Your task to perform on an android device: Open ESPN.com Image 0: 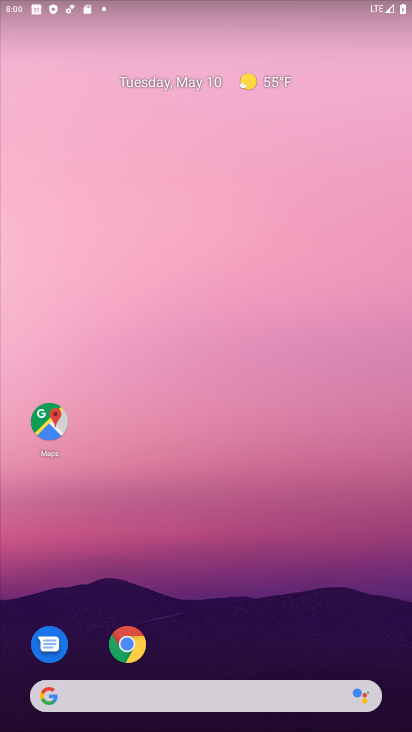
Step 0: drag from (221, 622) to (234, 152)
Your task to perform on an android device: Open ESPN.com Image 1: 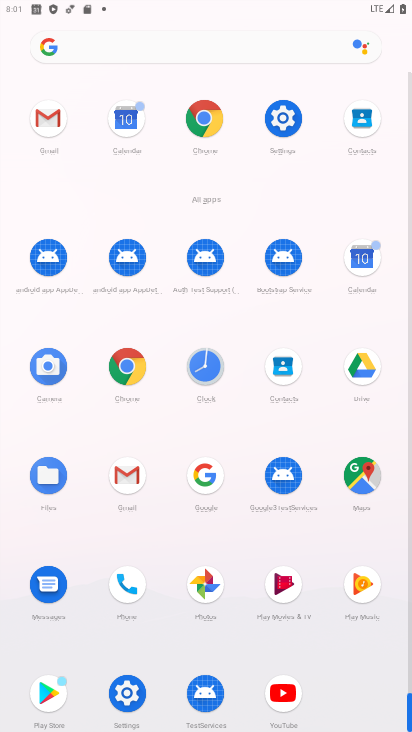
Step 1: click (211, 126)
Your task to perform on an android device: Open ESPN.com Image 2: 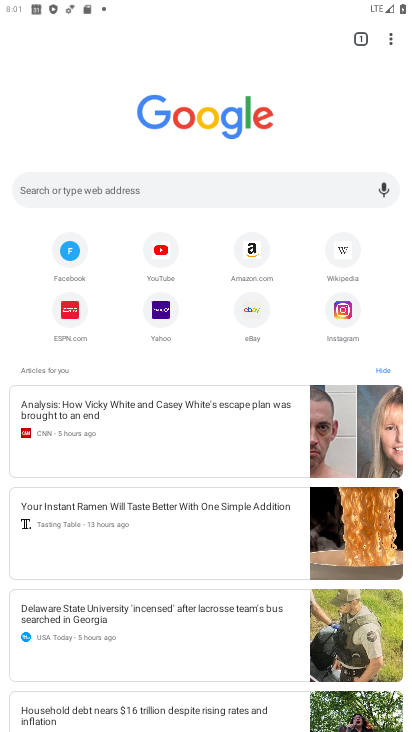
Step 2: click (69, 307)
Your task to perform on an android device: Open ESPN.com Image 3: 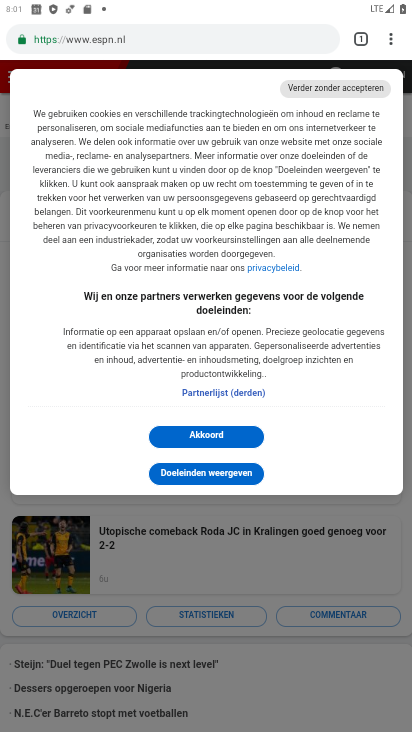
Step 3: task complete